Your task to perform on an android device: Open my contact list Image 0: 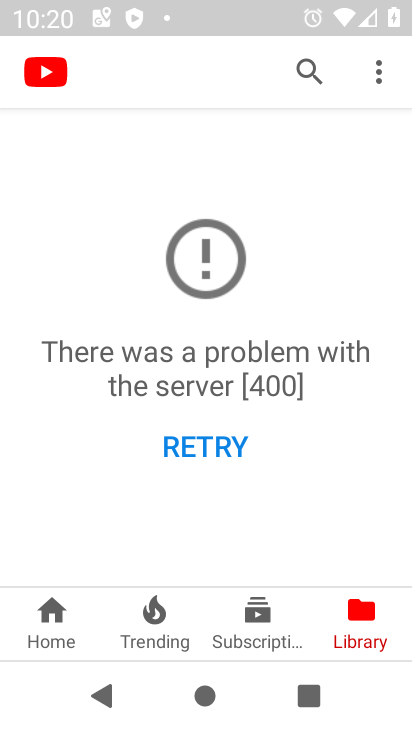
Step 0: press home button
Your task to perform on an android device: Open my contact list Image 1: 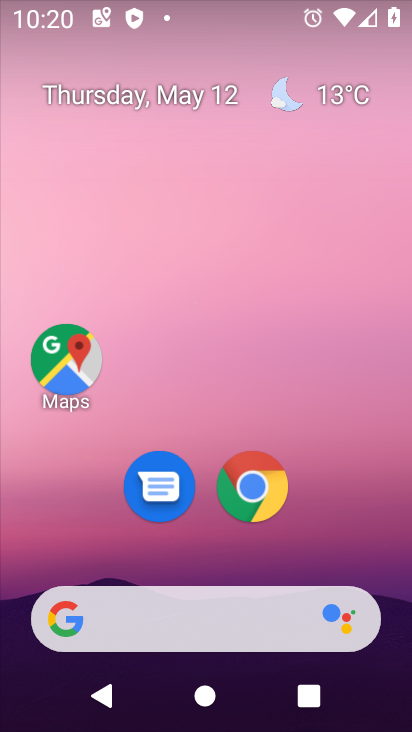
Step 1: drag from (341, 482) to (282, 172)
Your task to perform on an android device: Open my contact list Image 2: 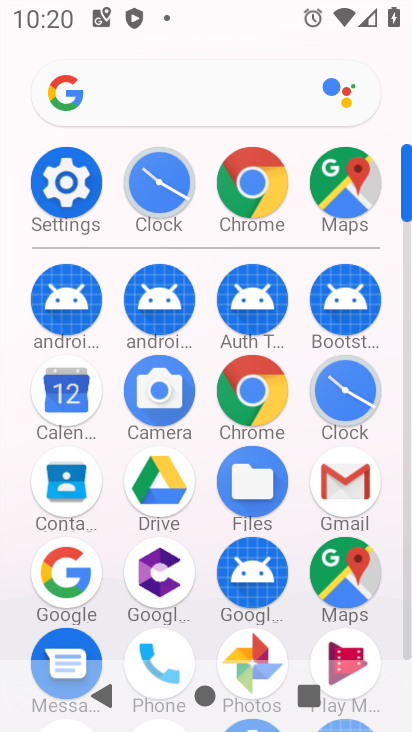
Step 2: click (80, 468)
Your task to perform on an android device: Open my contact list Image 3: 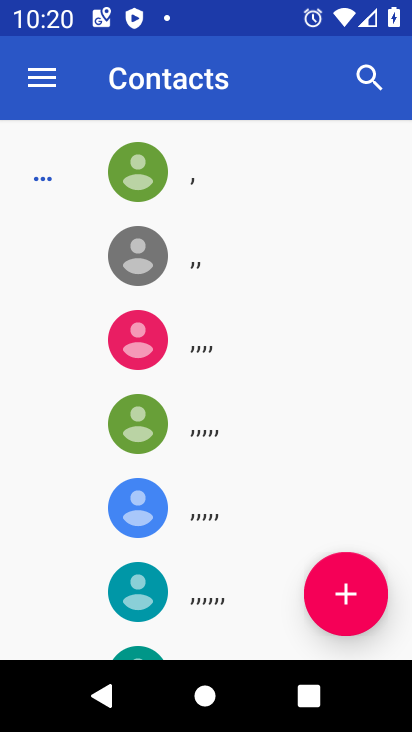
Step 3: task complete